Your task to perform on an android device: add a contact Image 0: 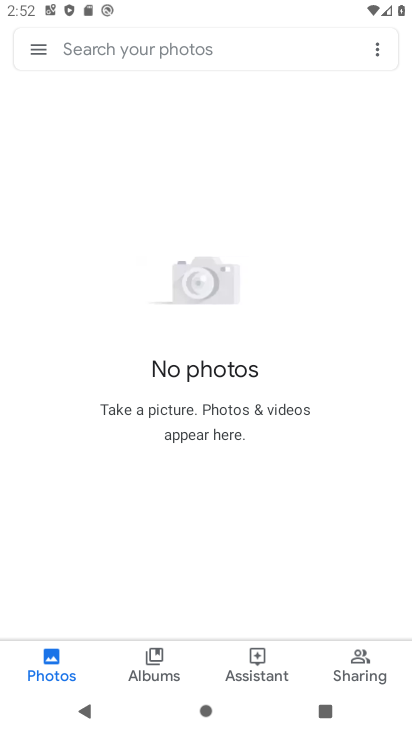
Step 0: press home button
Your task to perform on an android device: add a contact Image 1: 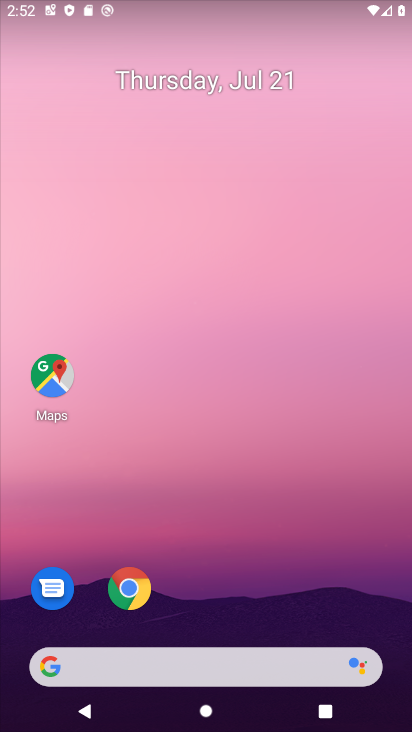
Step 1: drag from (209, 565) to (177, 104)
Your task to perform on an android device: add a contact Image 2: 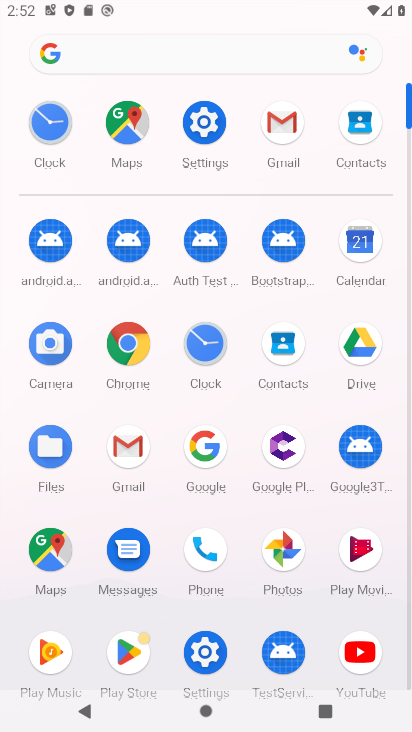
Step 2: click (285, 352)
Your task to perform on an android device: add a contact Image 3: 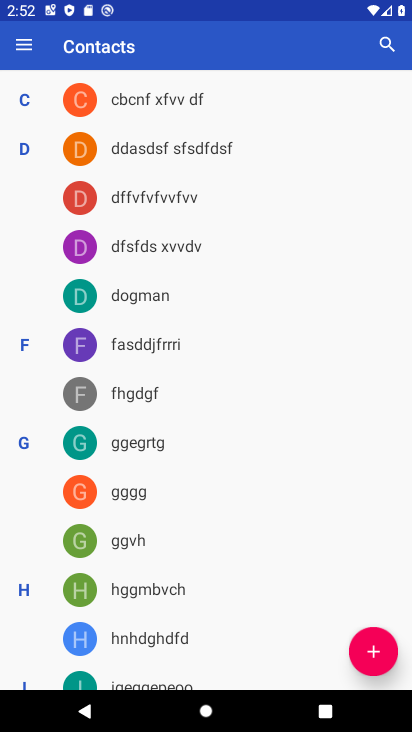
Step 3: click (376, 655)
Your task to perform on an android device: add a contact Image 4: 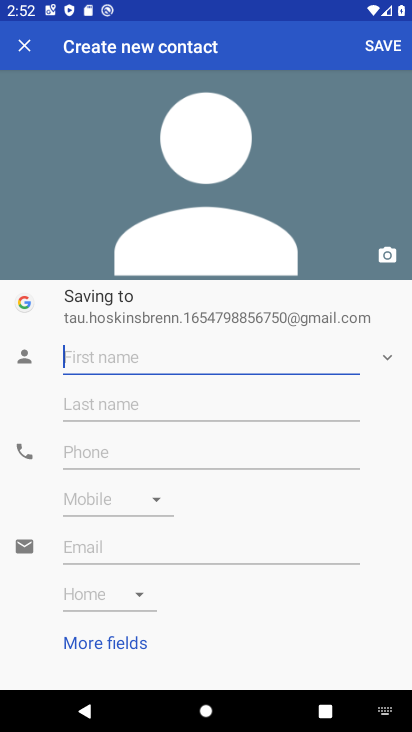
Step 4: type "df"
Your task to perform on an android device: add a contact Image 5: 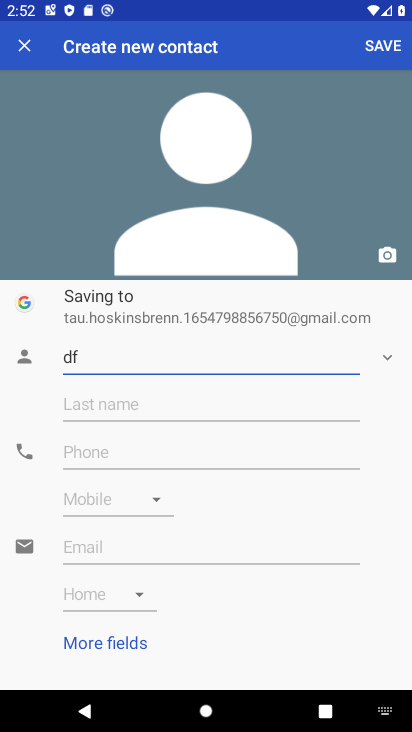
Step 5: click (120, 454)
Your task to perform on an android device: add a contact Image 6: 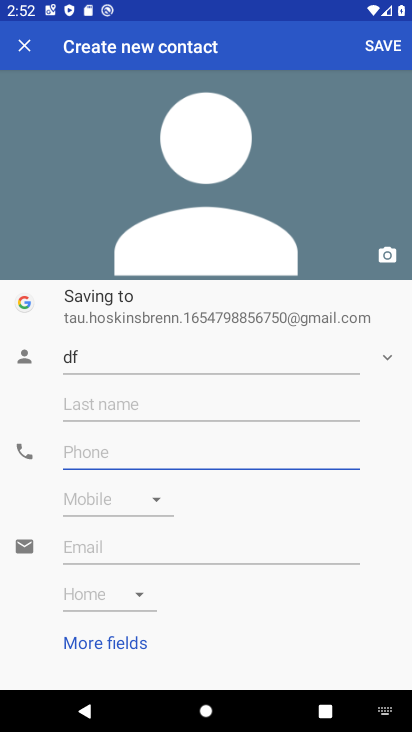
Step 6: type "87878"
Your task to perform on an android device: add a contact Image 7: 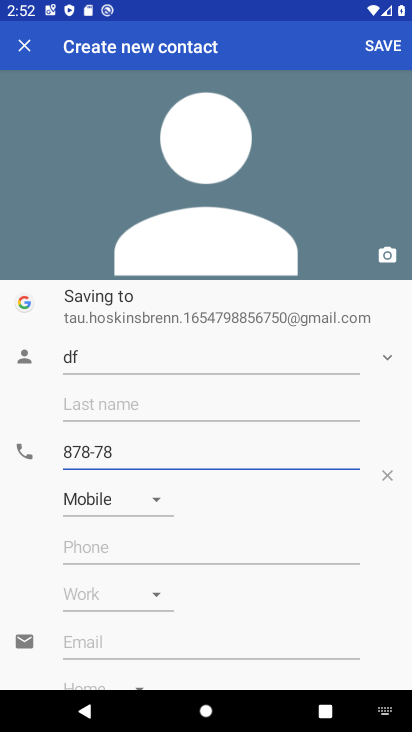
Step 7: click (381, 47)
Your task to perform on an android device: add a contact Image 8: 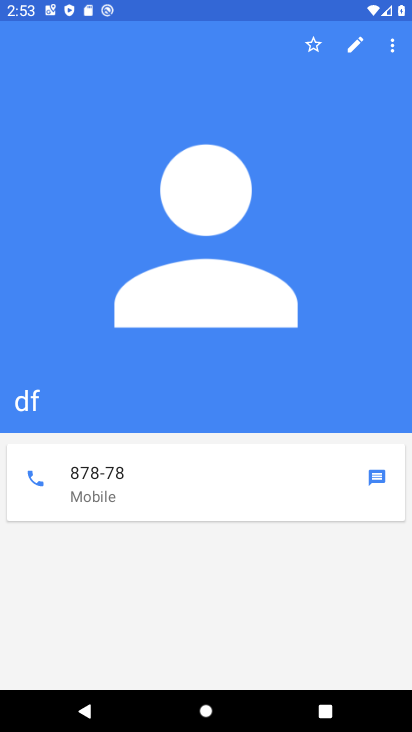
Step 8: task complete